Your task to perform on an android device: What's on my calendar today? Image 0: 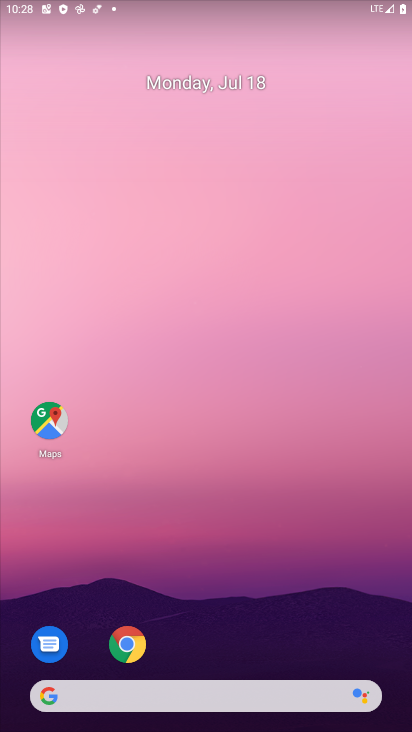
Step 0: drag from (298, 615) to (360, 110)
Your task to perform on an android device: What's on my calendar today? Image 1: 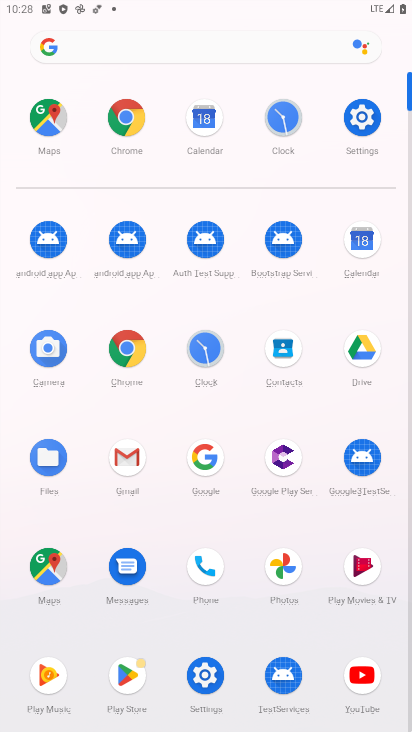
Step 1: click (357, 255)
Your task to perform on an android device: What's on my calendar today? Image 2: 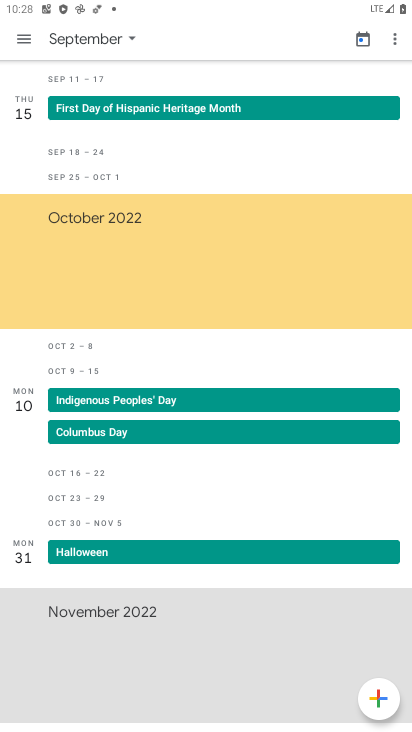
Step 2: task complete